Your task to perform on an android device: Empty the shopping cart on walmart. Add "macbook air" to the cart on walmart, then select checkout. Image 0: 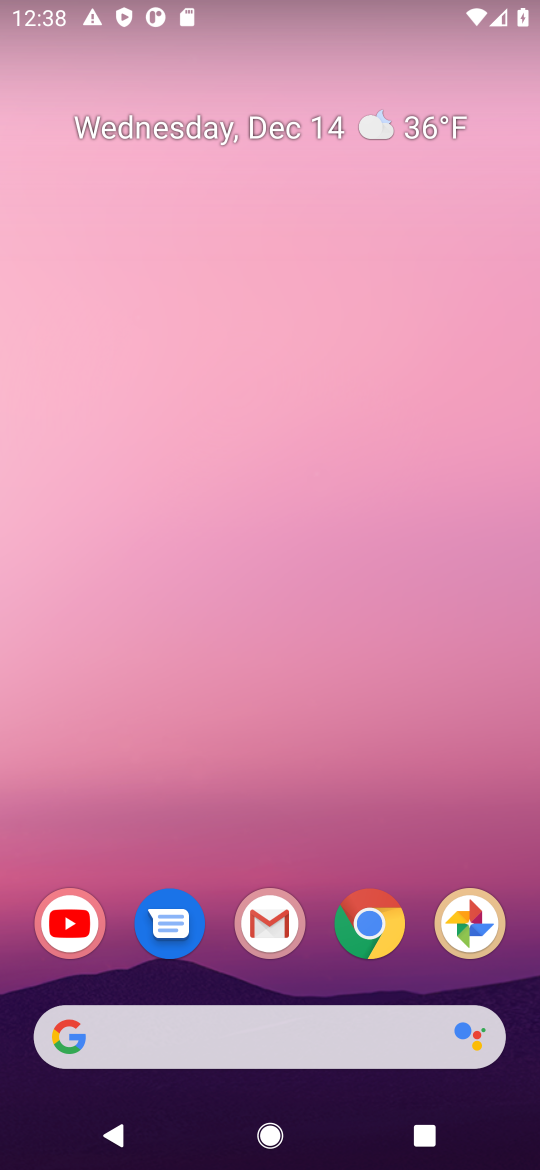
Step 0: click (349, 939)
Your task to perform on an android device: Empty the shopping cart on walmart. Add "macbook air" to the cart on walmart, then select checkout. Image 1: 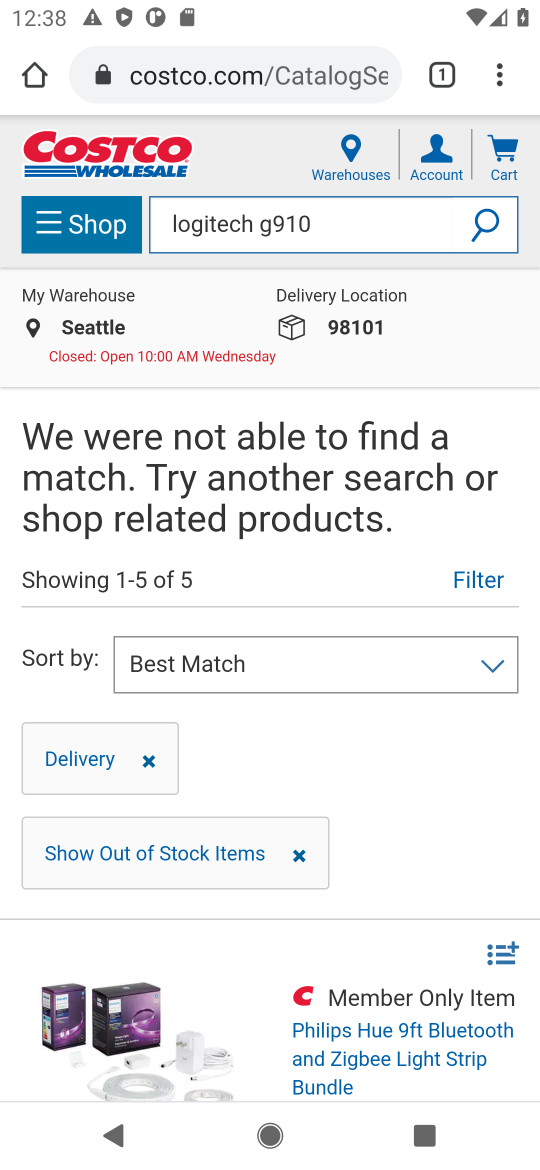
Step 1: click (199, 79)
Your task to perform on an android device: Empty the shopping cart on walmart. Add "macbook air" to the cart on walmart, then select checkout. Image 2: 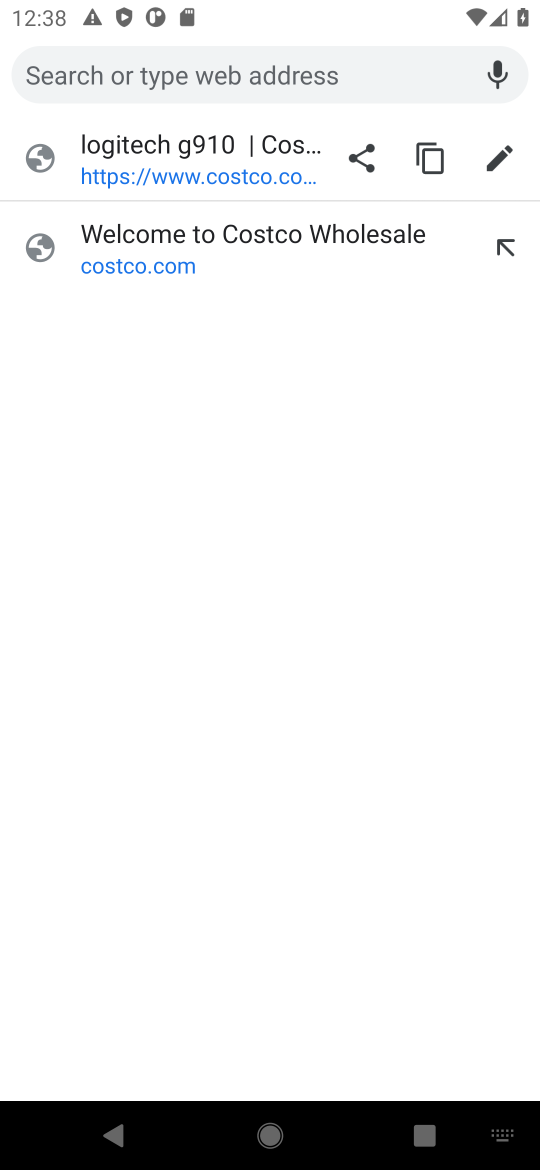
Step 2: type "walmart"
Your task to perform on an android device: Empty the shopping cart on walmart. Add "macbook air" to the cart on walmart, then select checkout. Image 3: 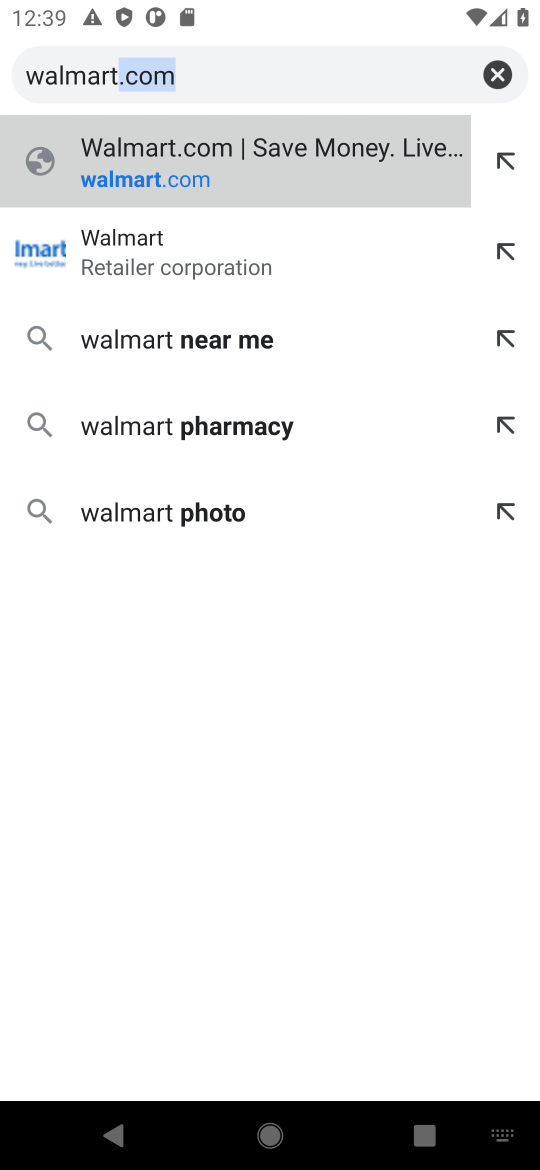
Step 3: click (295, 152)
Your task to perform on an android device: Empty the shopping cart on walmart. Add "macbook air" to the cart on walmart, then select checkout. Image 4: 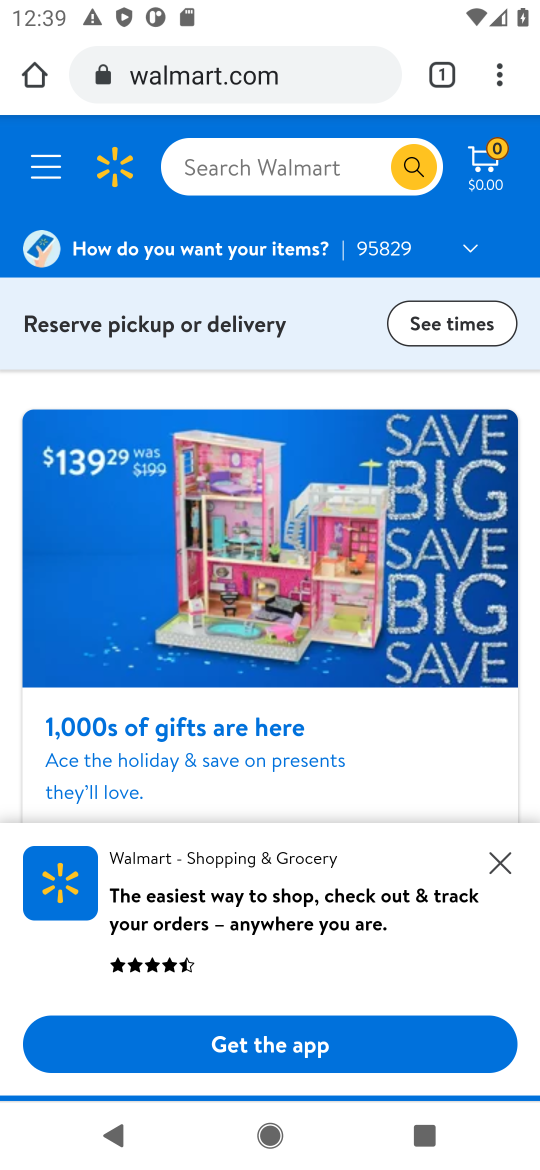
Step 4: click (308, 176)
Your task to perform on an android device: Empty the shopping cart on walmart. Add "macbook air" to the cart on walmart, then select checkout. Image 5: 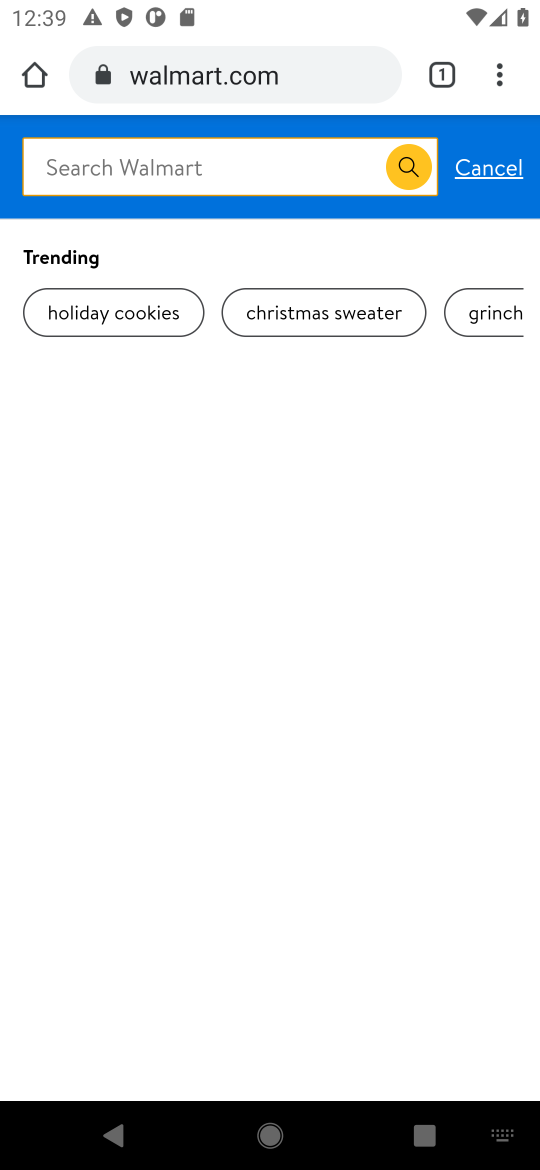
Step 5: type "macbook air"
Your task to perform on an android device: Empty the shopping cart on walmart. Add "macbook air" to the cart on walmart, then select checkout. Image 6: 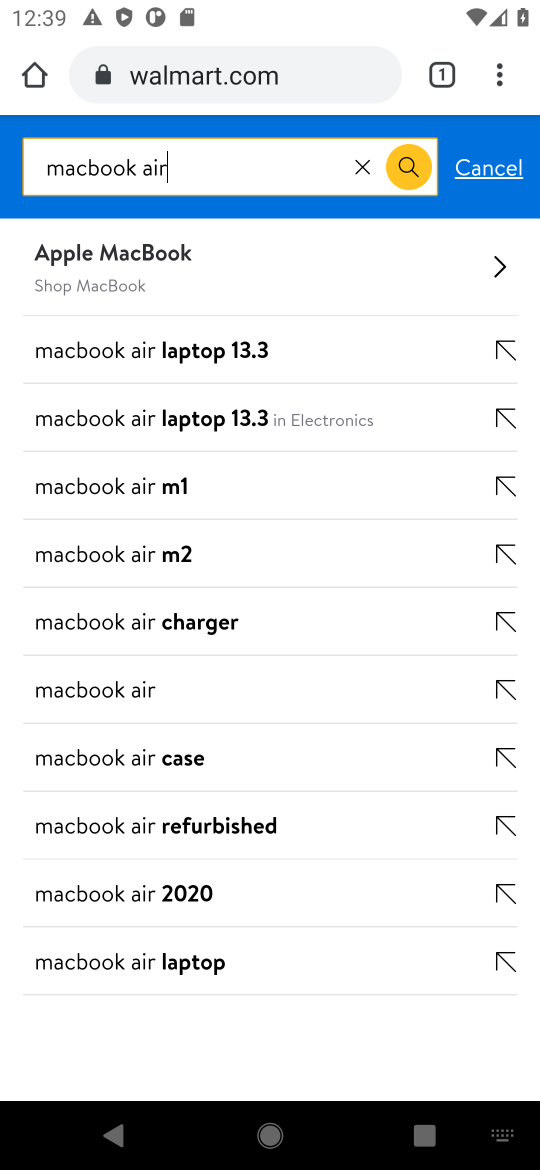
Step 6: click (146, 270)
Your task to perform on an android device: Empty the shopping cart on walmart. Add "macbook air" to the cart on walmart, then select checkout. Image 7: 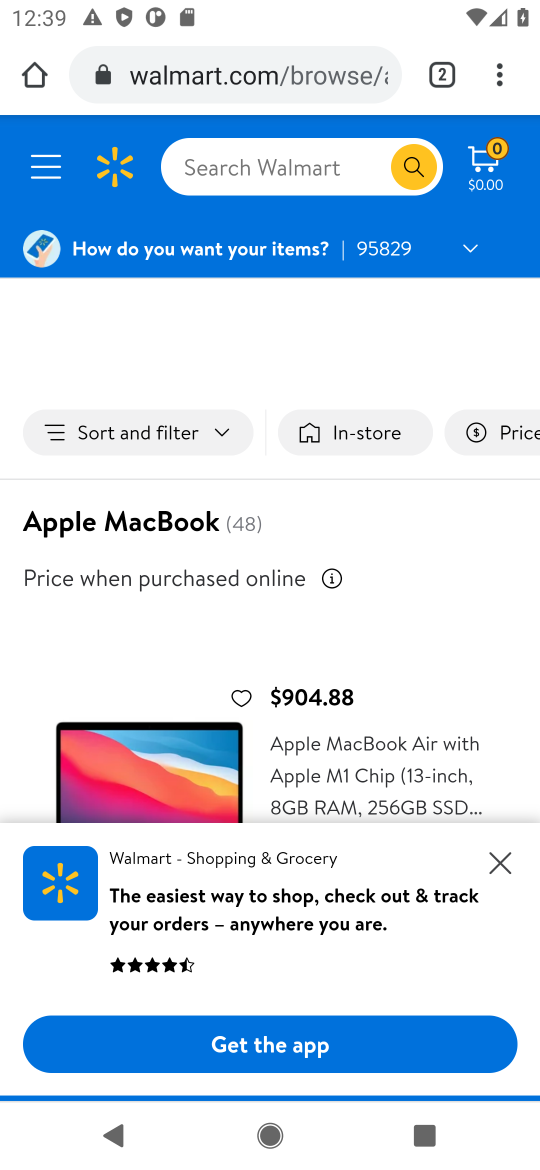
Step 7: click (514, 857)
Your task to perform on an android device: Empty the shopping cart on walmart. Add "macbook air" to the cart on walmart, then select checkout. Image 8: 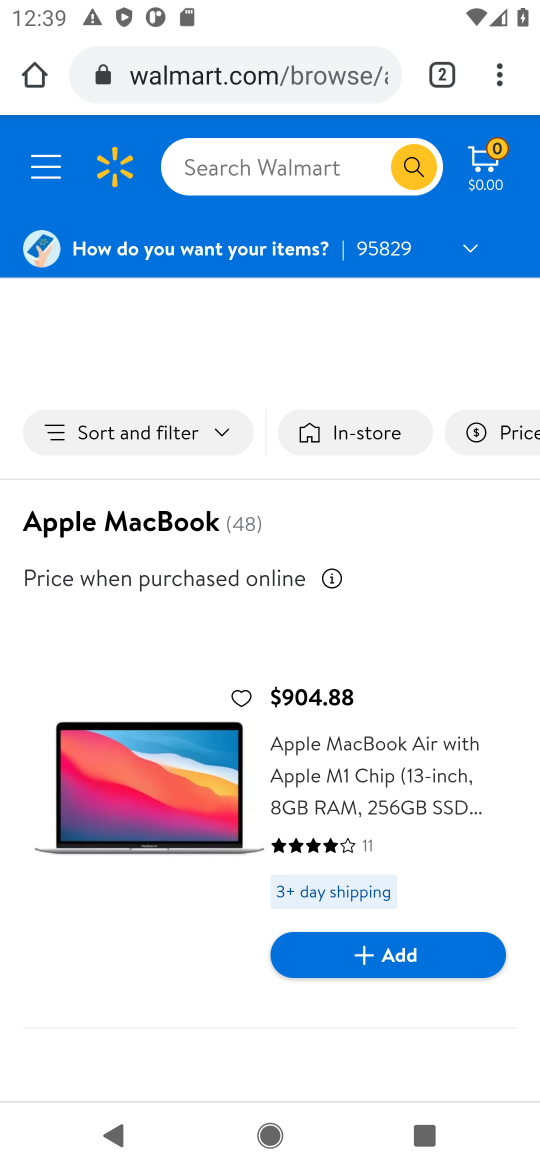
Step 8: click (440, 946)
Your task to perform on an android device: Empty the shopping cart on walmart. Add "macbook air" to the cart on walmart, then select checkout. Image 9: 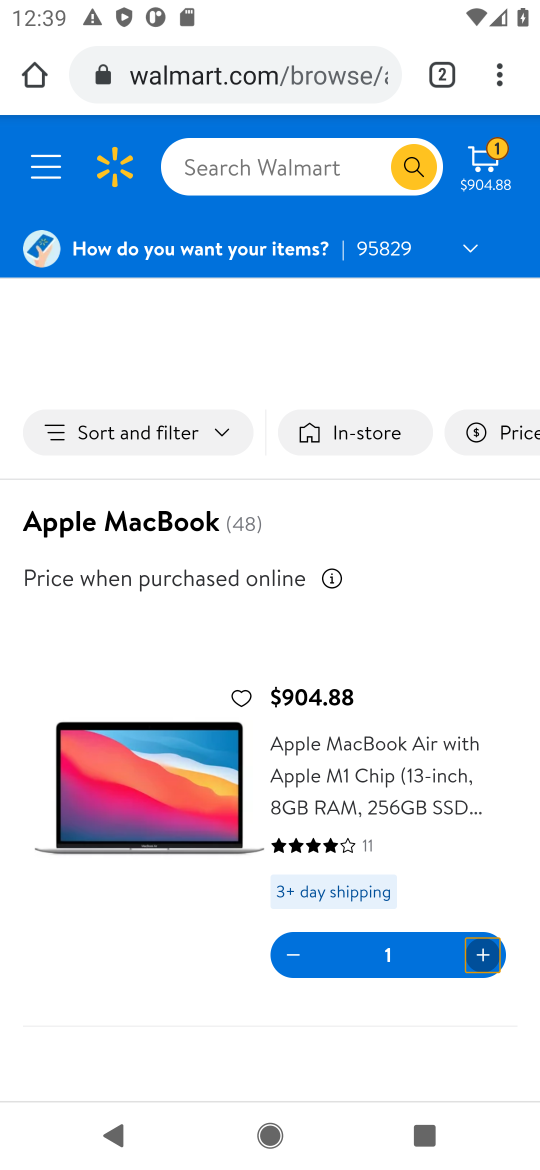
Step 9: task complete